Your task to perform on an android device: See recent photos Image 0: 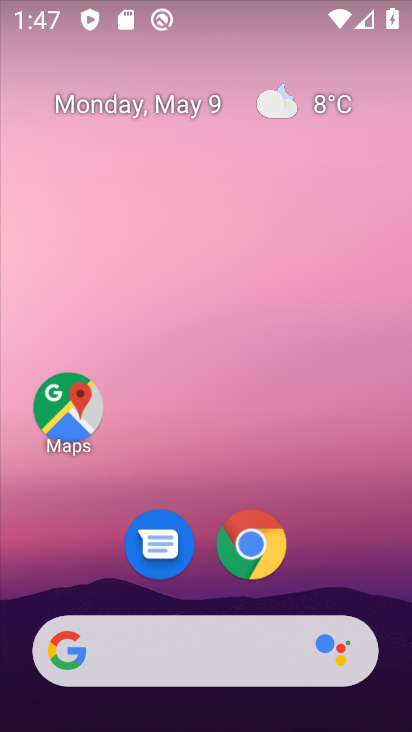
Step 0: drag from (153, 614) to (249, 156)
Your task to perform on an android device: See recent photos Image 1: 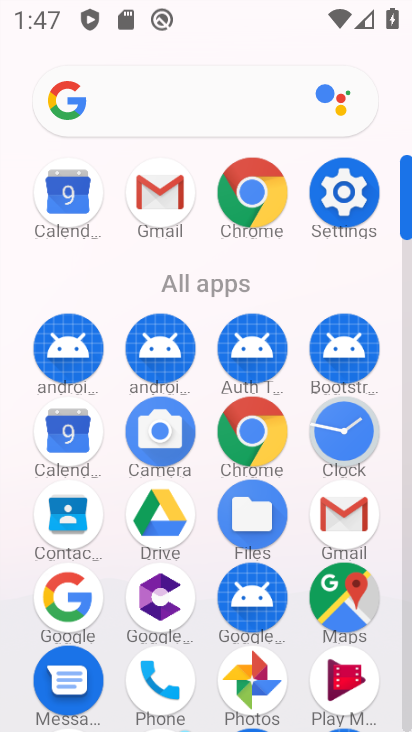
Step 1: click (268, 672)
Your task to perform on an android device: See recent photos Image 2: 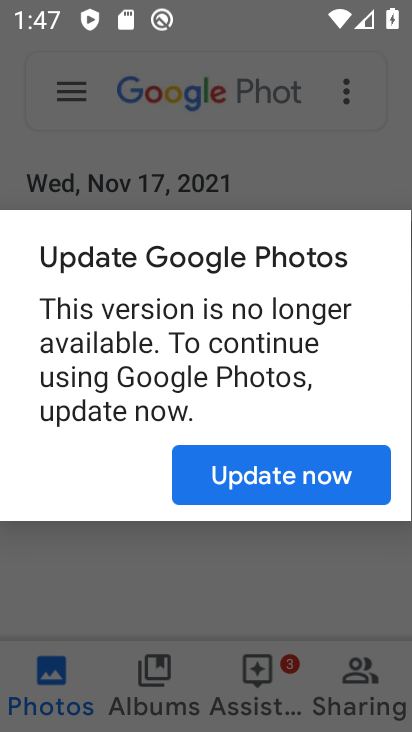
Step 2: click (306, 487)
Your task to perform on an android device: See recent photos Image 3: 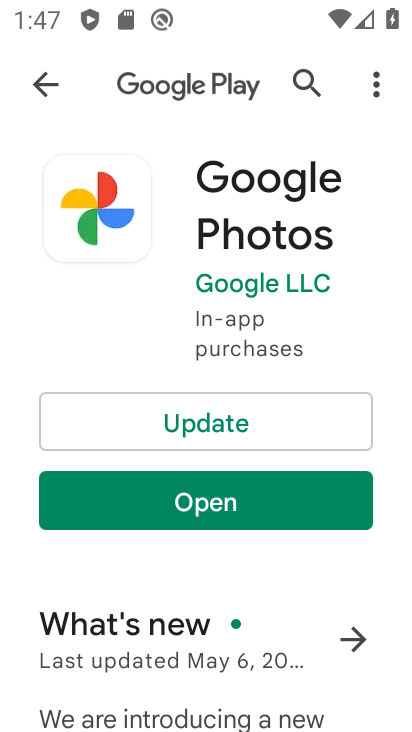
Step 3: click (266, 432)
Your task to perform on an android device: See recent photos Image 4: 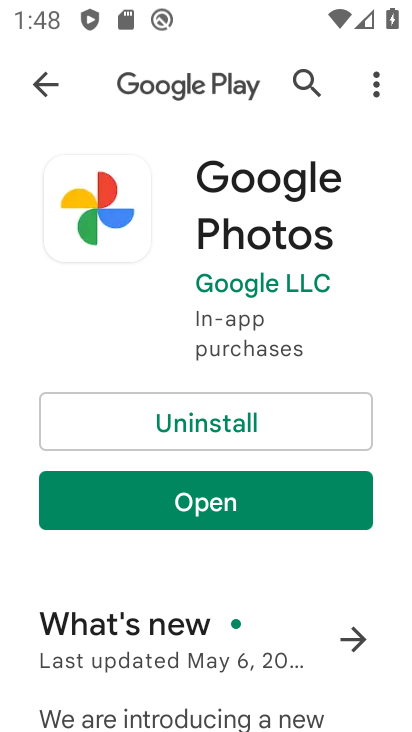
Step 4: click (272, 494)
Your task to perform on an android device: See recent photos Image 5: 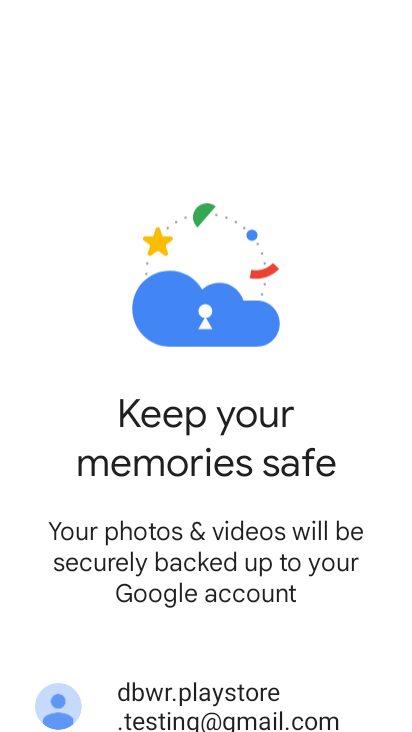
Step 5: drag from (276, 670) to (345, 471)
Your task to perform on an android device: See recent photos Image 6: 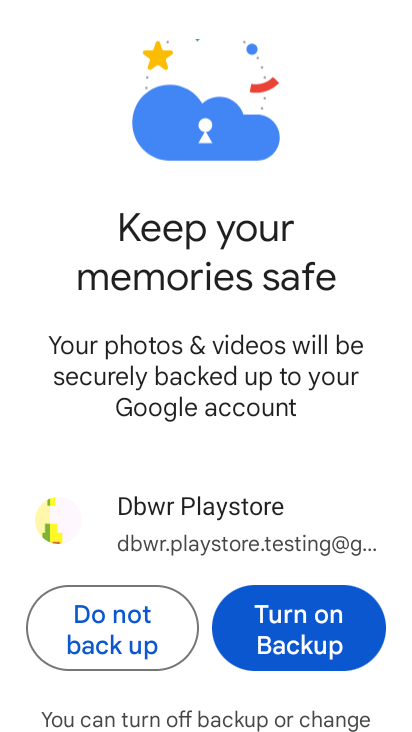
Step 6: click (329, 624)
Your task to perform on an android device: See recent photos Image 7: 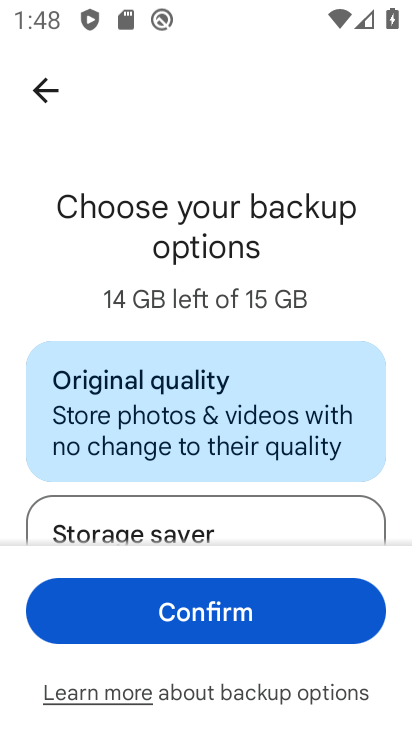
Step 7: click (329, 624)
Your task to perform on an android device: See recent photos Image 8: 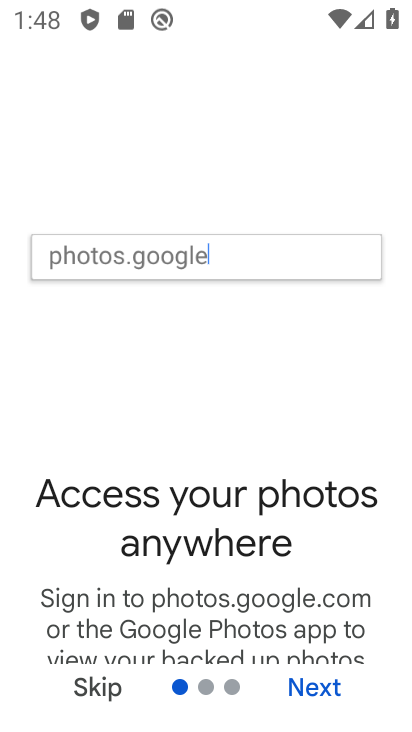
Step 8: click (339, 699)
Your task to perform on an android device: See recent photos Image 9: 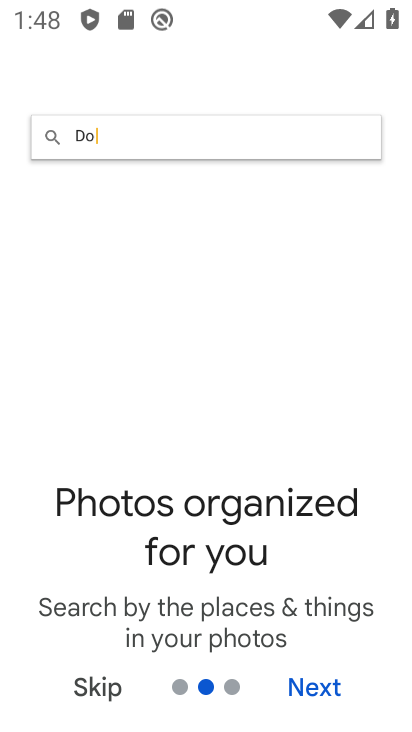
Step 9: click (339, 699)
Your task to perform on an android device: See recent photos Image 10: 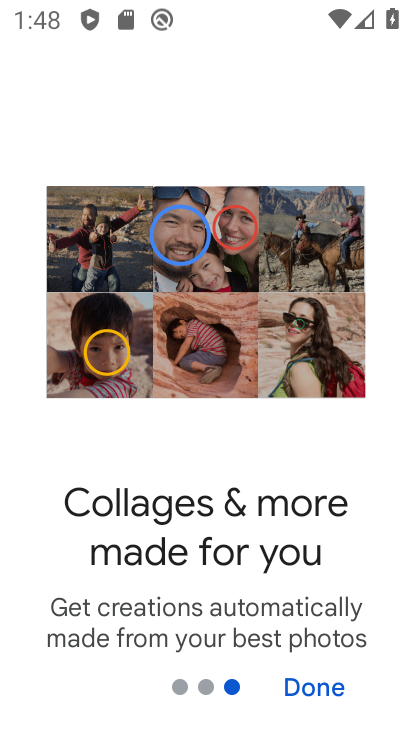
Step 10: click (339, 699)
Your task to perform on an android device: See recent photos Image 11: 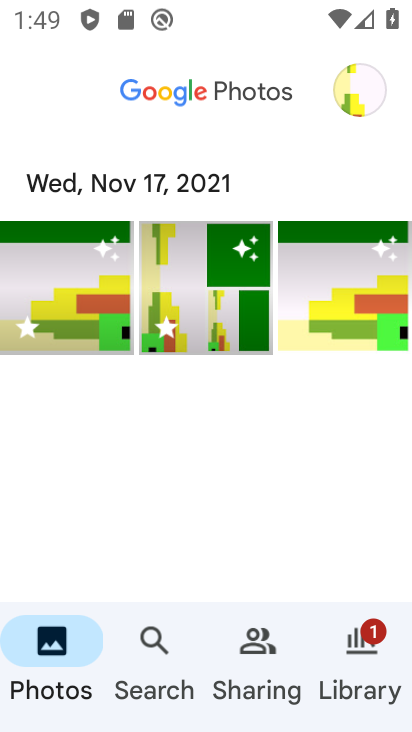
Step 11: task complete